Your task to perform on an android device: Do I have any events today? Image 0: 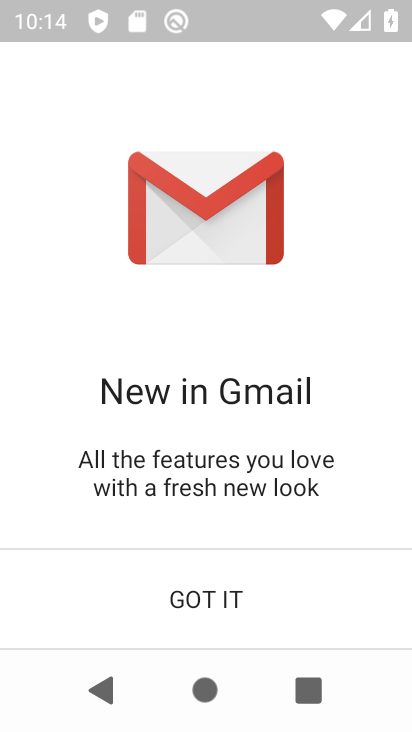
Step 0: click (201, 612)
Your task to perform on an android device: Do I have any events today? Image 1: 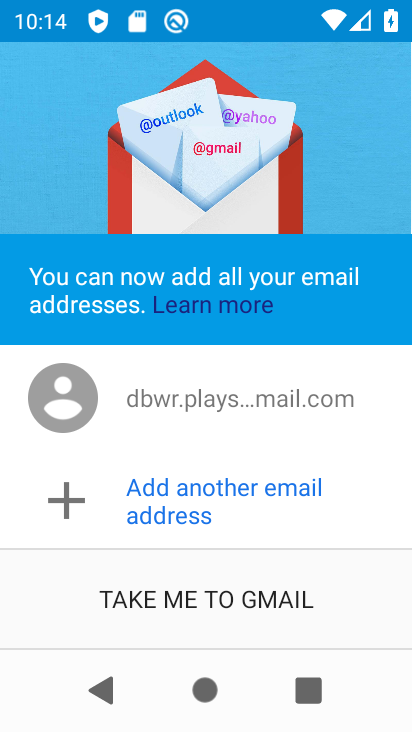
Step 1: click (208, 603)
Your task to perform on an android device: Do I have any events today? Image 2: 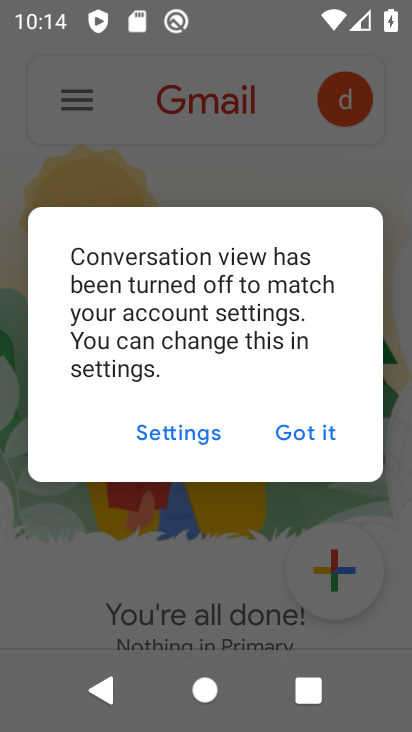
Step 2: click (297, 436)
Your task to perform on an android device: Do I have any events today? Image 3: 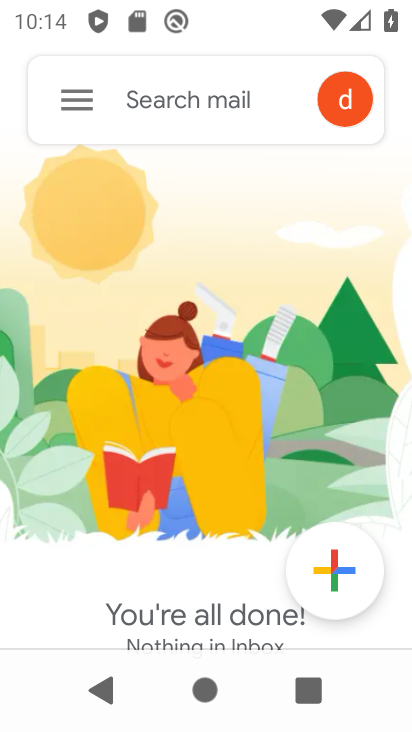
Step 3: click (75, 108)
Your task to perform on an android device: Do I have any events today? Image 4: 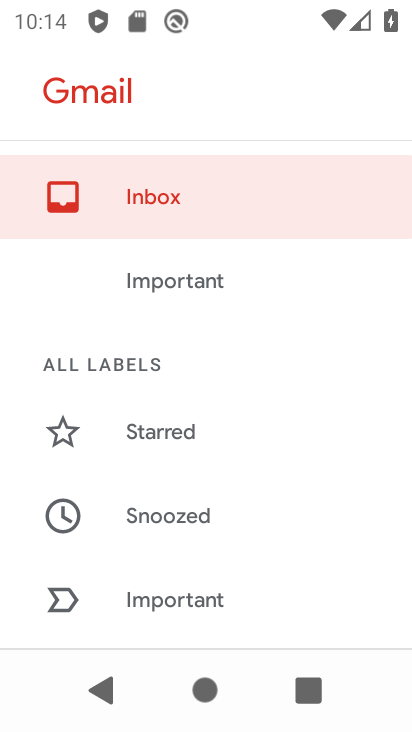
Step 4: press home button
Your task to perform on an android device: Do I have any events today? Image 5: 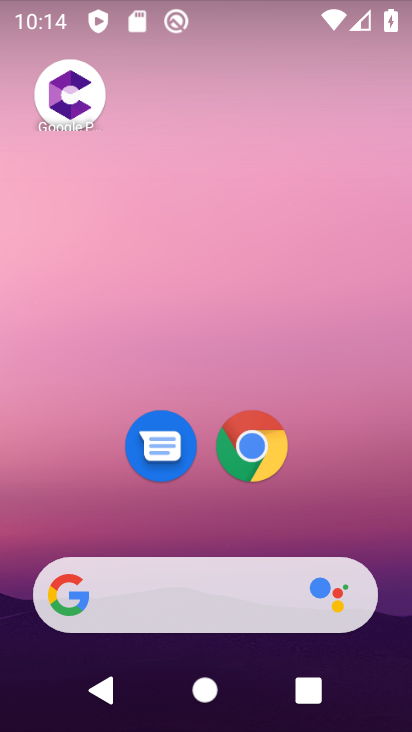
Step 5: drag from (191, 516) to (260, 147)
Your task to perform on an android device: Do I have any events today? Image 6: 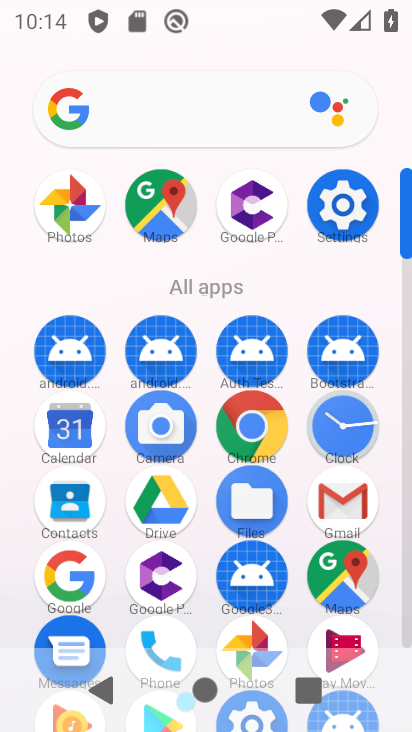
Step 6: click (76, 429)
Your task to perform on an android device: Do I have any events today? Image 7: 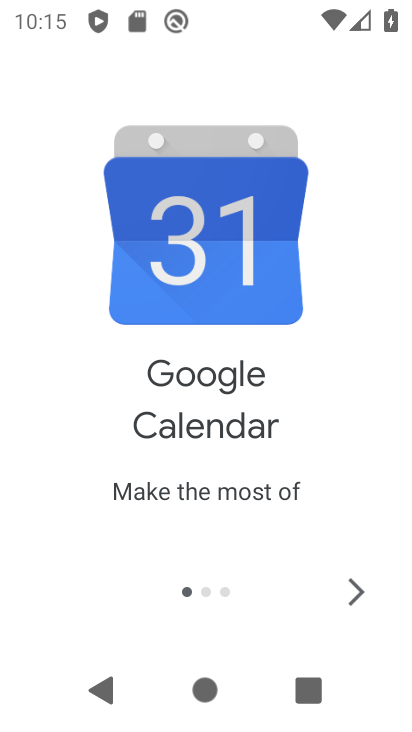
Step 7: click (345, 581)
Your task to perform on an android device: Do I have any events today? Image 8: 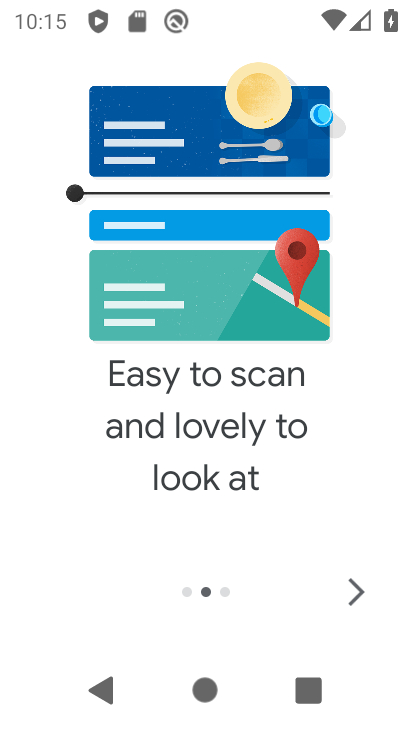
Step 8: click (345, 581)
Your task to perform on an android device: Do I have any events today? Image 9: 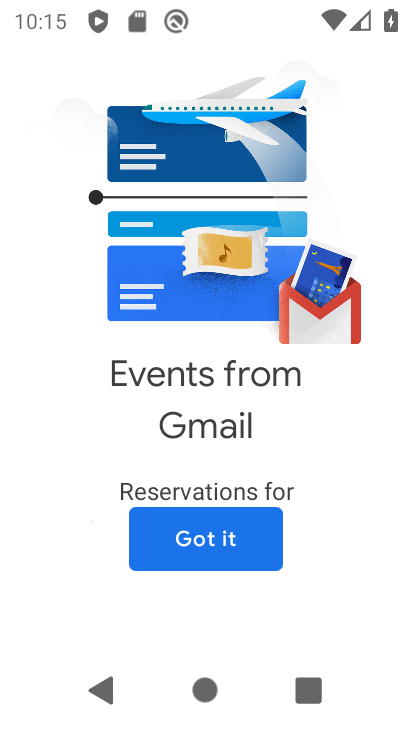
Step 9: click (251, 532)
Your task to perform on an android device: Do I have any events today? Image 10: 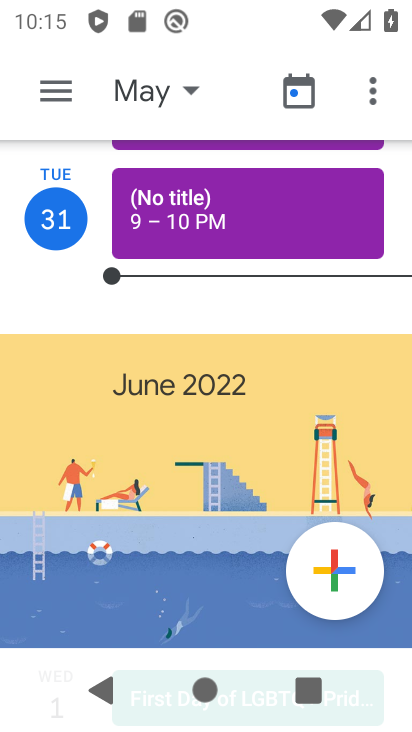
Step 10: click (44, 84)
Your task to perform on an android device: Do I have any events today? Image 11: 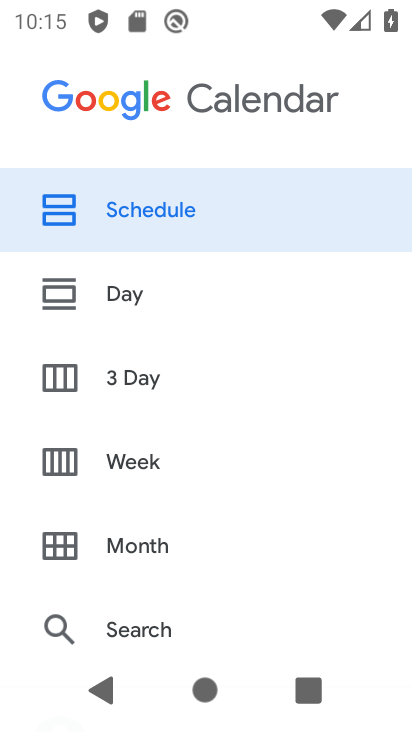
Step 11: click (142, 286)
Your task to perform on an android device: Do I have any events today? Image 12: 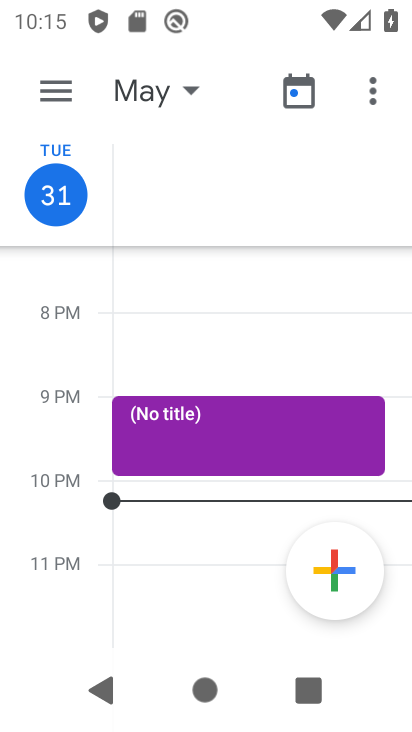
Step 12: task complete